Your task to perform on an android device: Open Amazon Image 0: 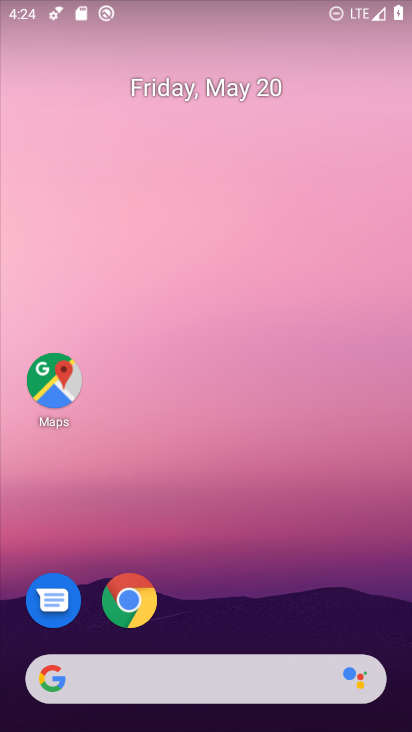
Step 0: click (125, 591)
Your task to perform on an android device: Open Amazon Image 1: 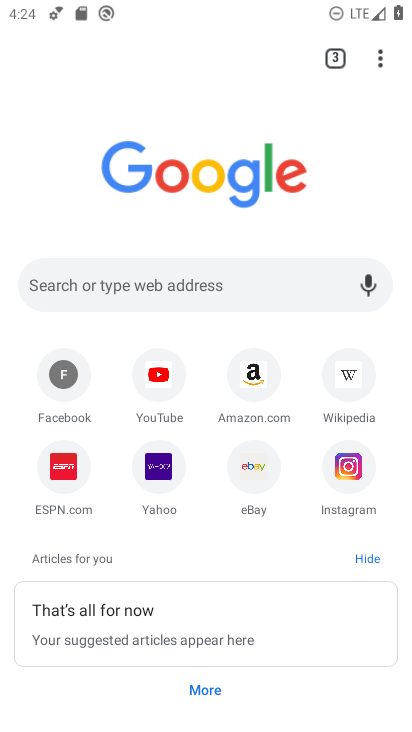
Step 1: click (258, 377)
Your task to perform on an android device: Open Amazon Image 2: 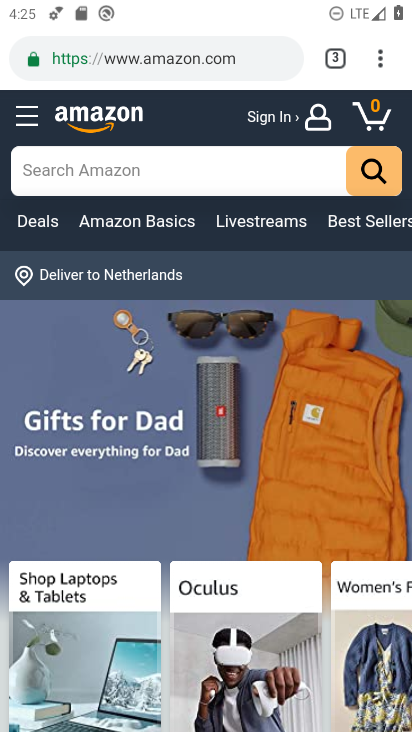
Step 2: task complete